Your task to perform on an android device: Show me productivity apps on the Play Store Image 0: 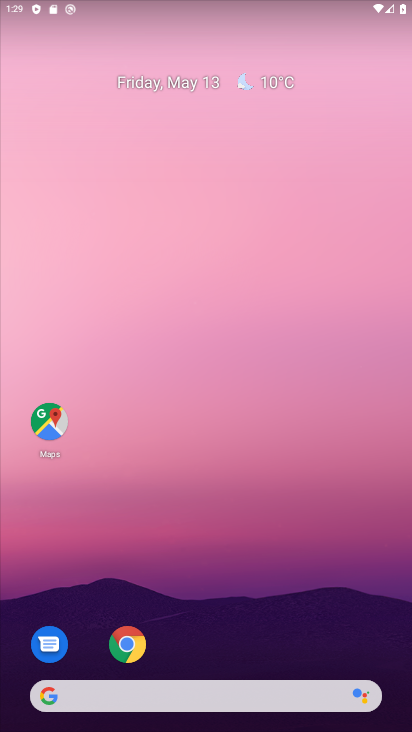
Step 0: drag from (286, 642) to (365, 0)
Your task to perform on an android device: Show me productivity apps on the Play Store Image 1: 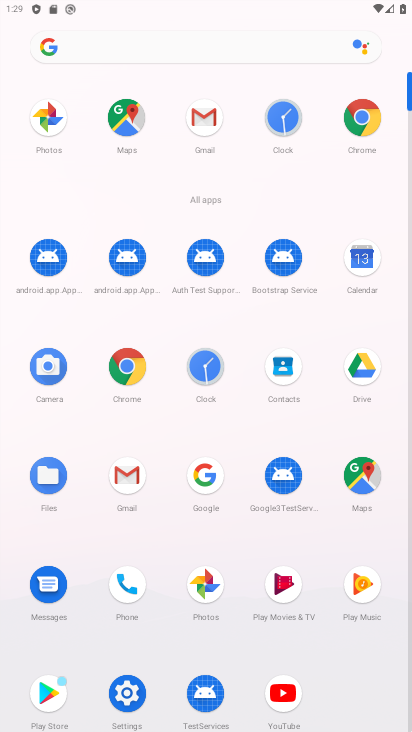
Step 1: click (44, 697)
Your task to perform on an android device: Show me productivity apps on the Play Store Image 2: 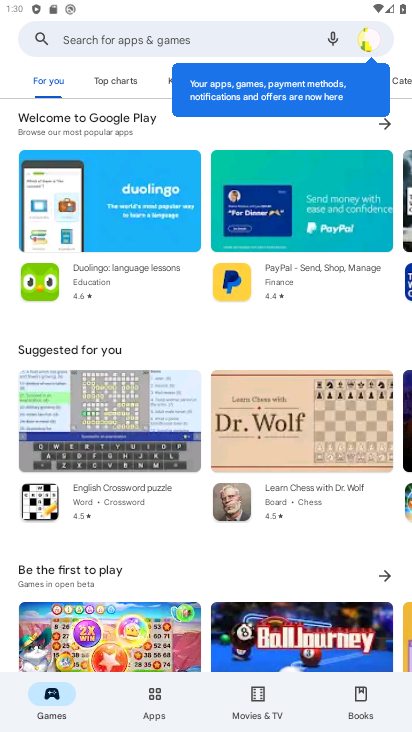
Step 2: click (164, 708)
Your task to perform on an android device: Show me productivity apps on the Play Store Image 3: 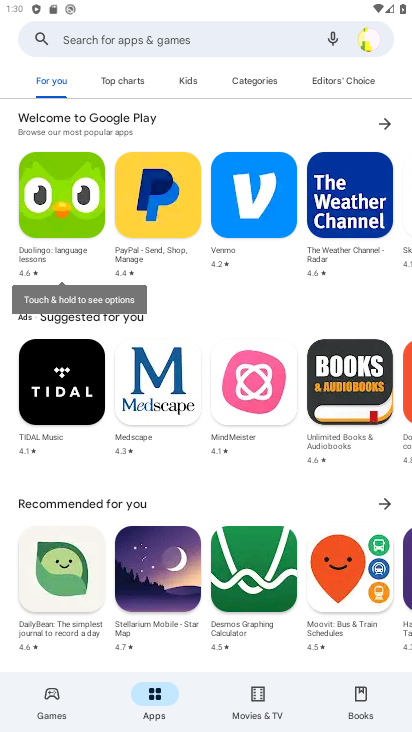
Step 3: task complete